Your task to perform on an android device: Search for the top rated book on goodreads. Image 0: 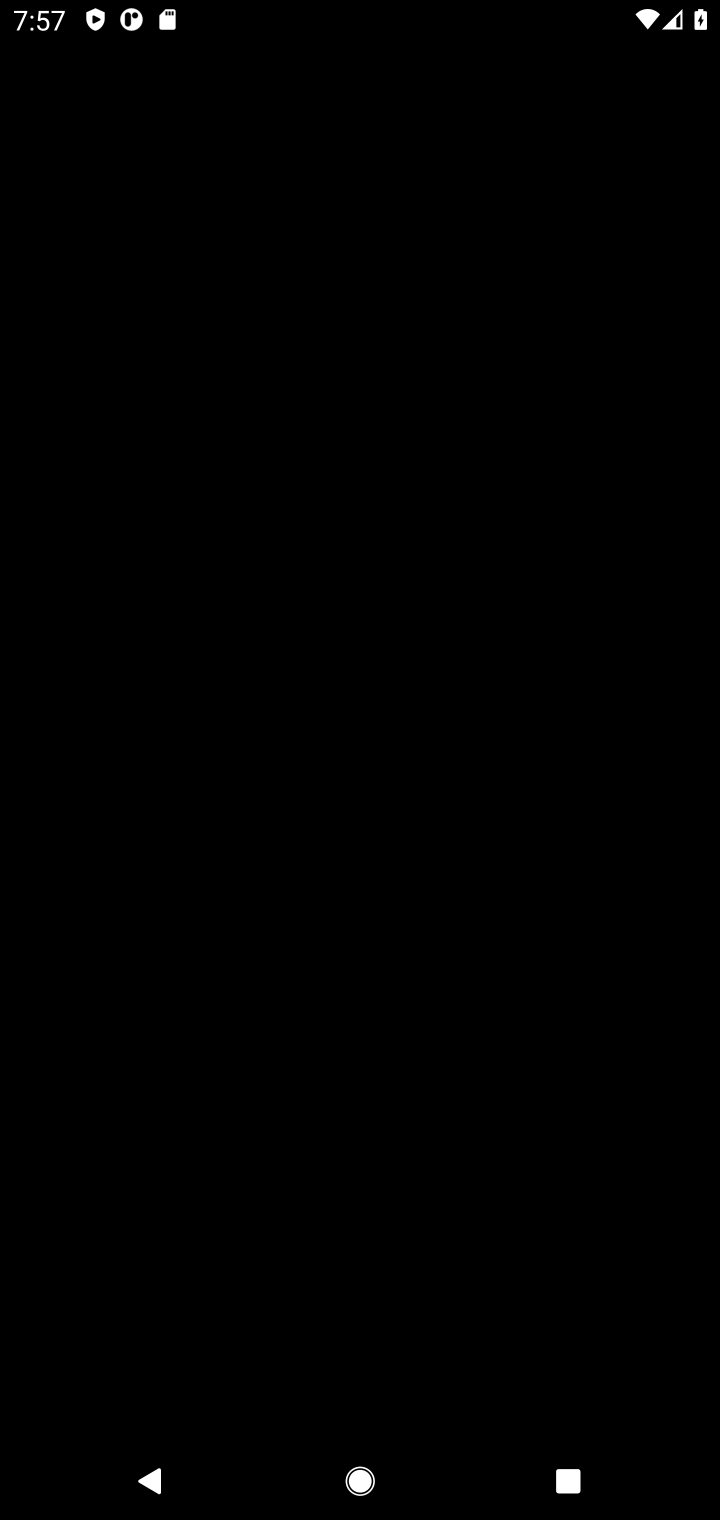
Step 0: task impossible